Your task to perform on an android device: What's the weather? Image 0: 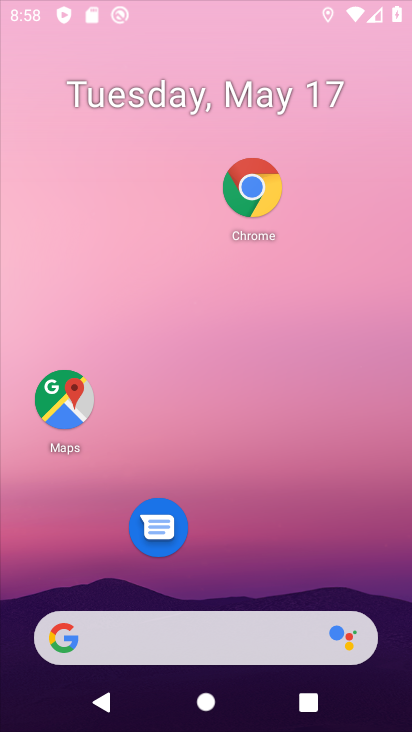
Step 0: drag from (353, 290) to (357, 252)
Your task to perform on an android device: What's the weather? Image 1: 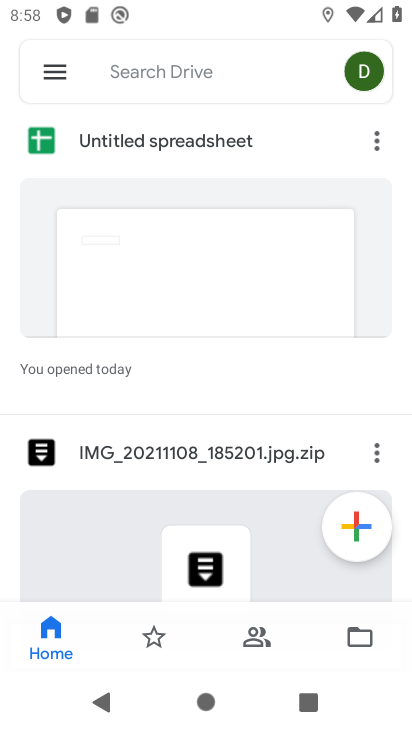
Step 1: press home button
Your task to perform on an android device: What's the weather? Image 2: 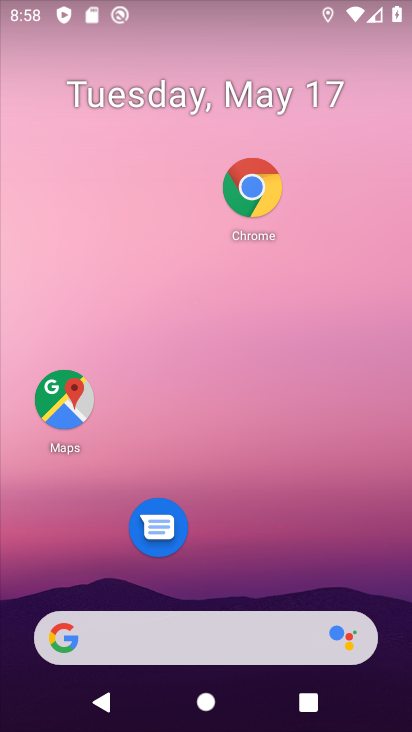
Step 2: click (185, 632)
Your task to perform on an android device: What's the weather? Image 3: 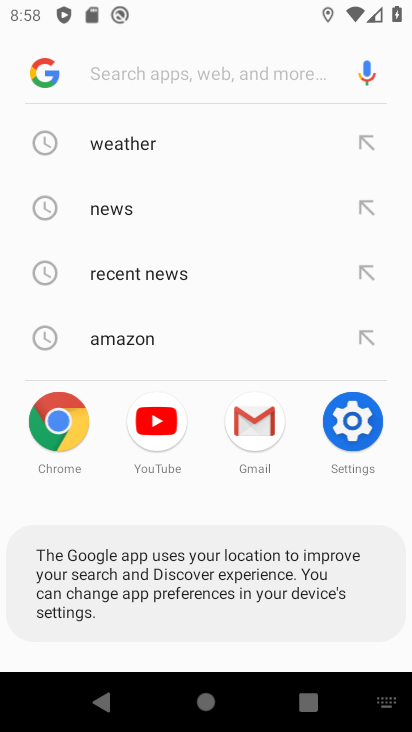
Step 3: click (153, 148)
Your task to perform on an android device: What's the weather? Image 4: 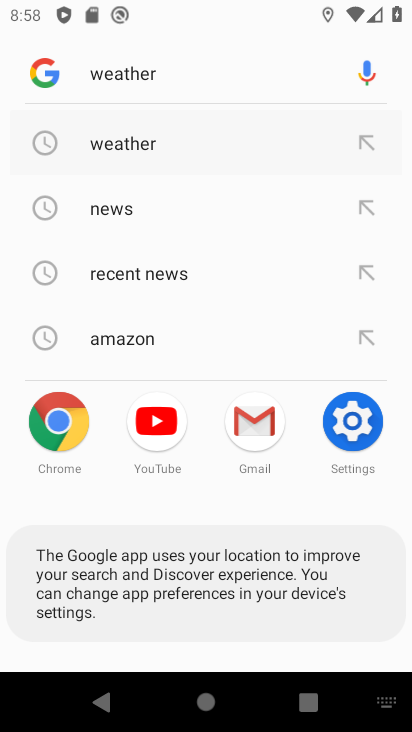
Step 4: task complete